Your task to perform on an android device: set the timer Image 0: 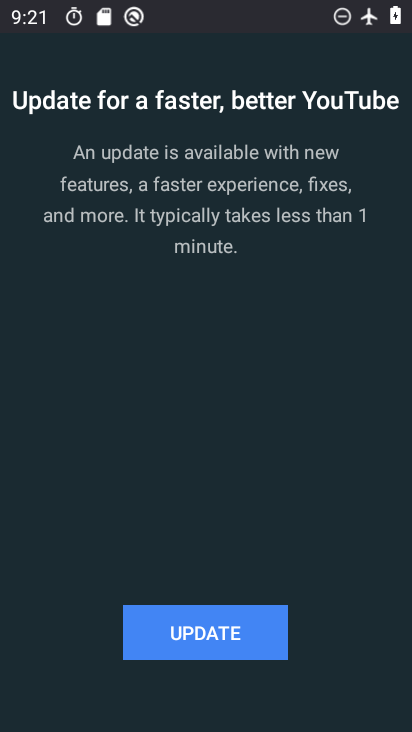
Step 0: press home button
Your task to perform on an android device: set the timer Image 1: 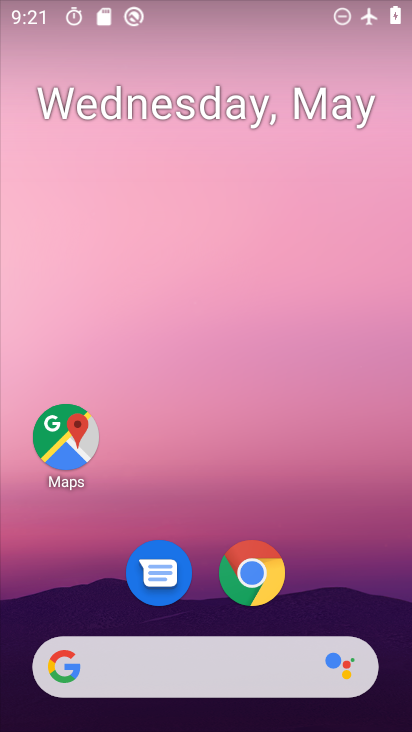
Step 1: drag from (389, 487) to (356, 288)
Your task to perform on an android device: set the timer Image 2: 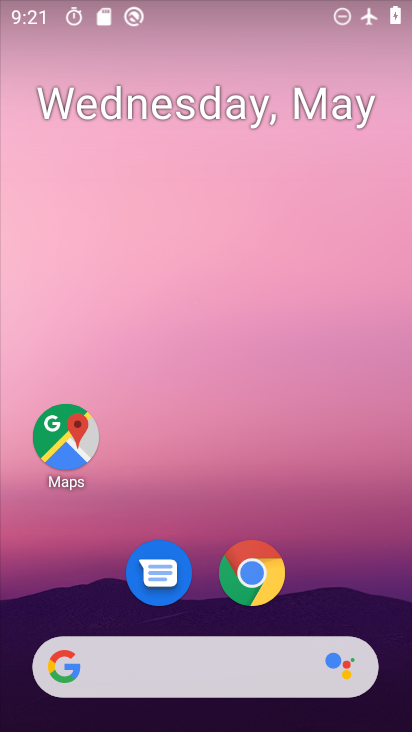
Step 2: drag from (395, 699) to (381, 222)
Your task to perform on an android device: set the timer Image 3: 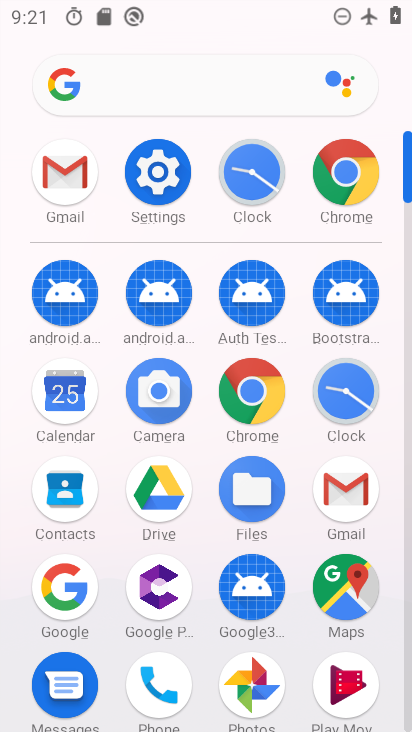
Step 3: click (343, 382)
Your task to perform on an android device: set the timer Image 4: 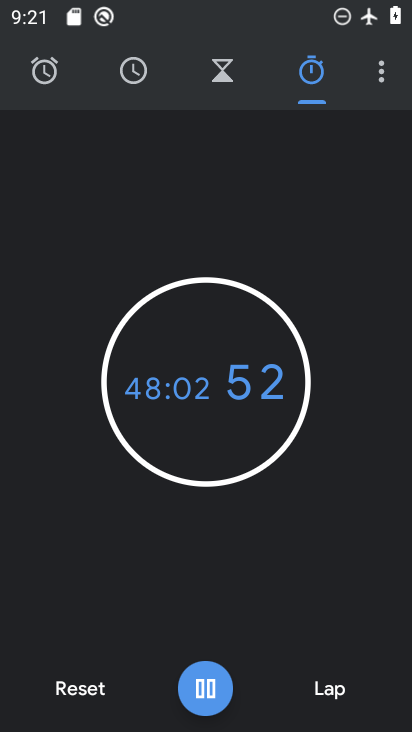
Step 4: click (66, 688)
Your task to perform on an android device: set the timer Image 5: 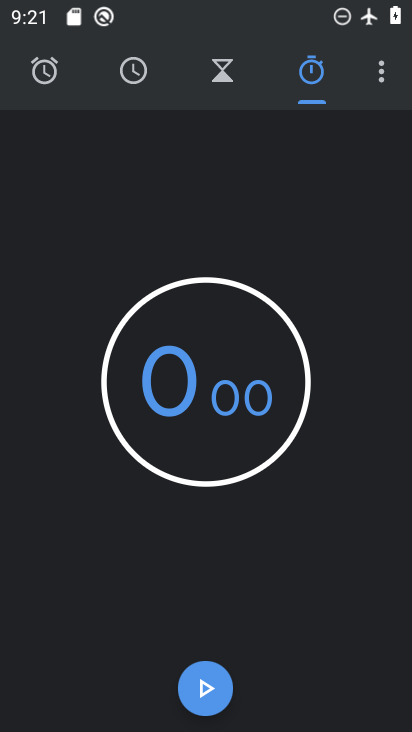
Step 5: click (223, 690)
Your task to perform on an android device: set the timer Image 6: 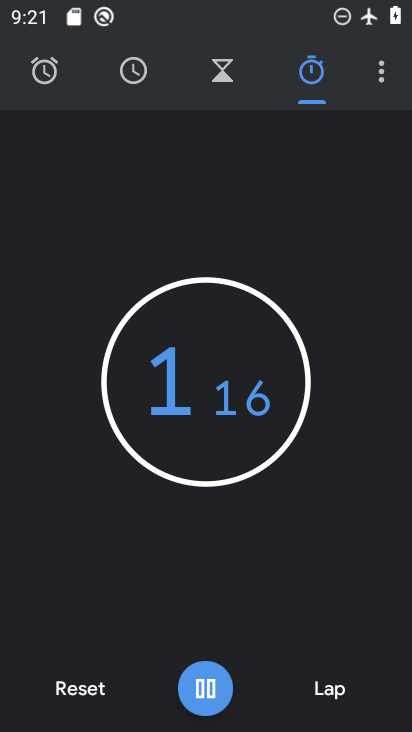
Step 6: task complete